Your task to perform on an android device: Show me popular games on the Play Store Image 0: 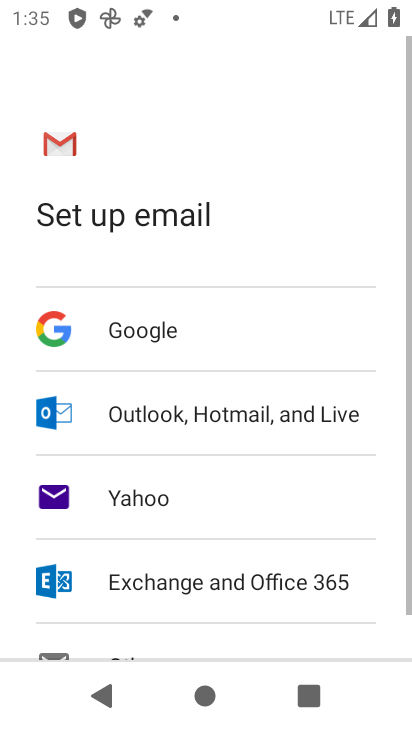
Step 0: press home button
Your task to perform on an android device: Show me popular games on the Play Store Image 1: 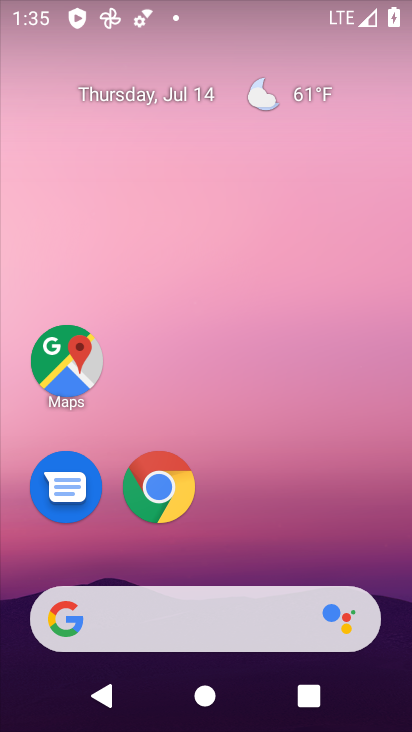
Step 1: drag from (351, 533) to (360, 96)
Your task to perform on an android device: Show me popular games on the Play Store Image 2: 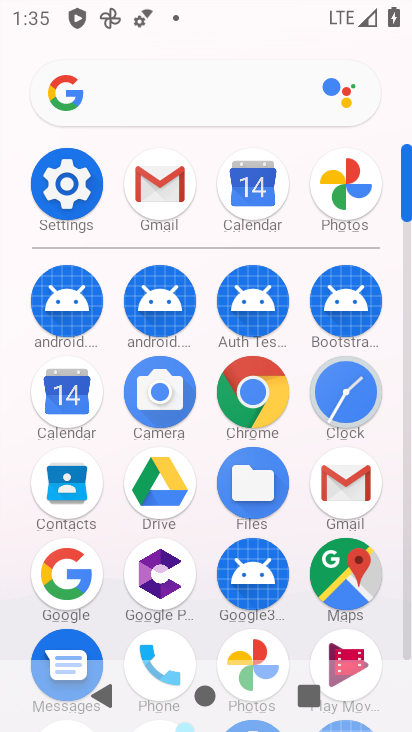
Step 2: drag from (383, 620) to (394, 301)
Your task to perform on an android device: Show me popular games on the Play Store Image 3: 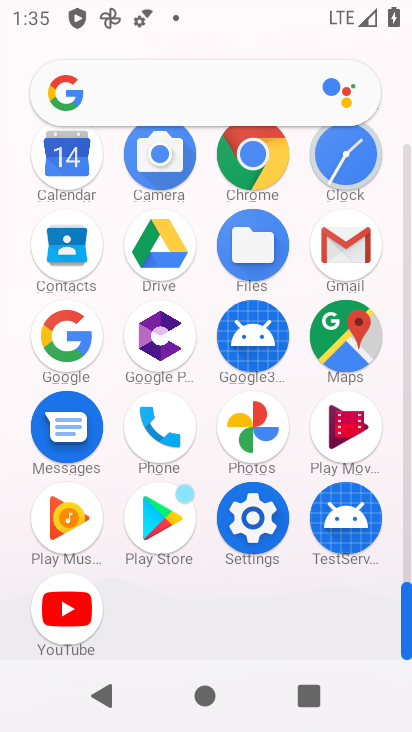
Step 3: click (165, 520)
Your task to perform on an android device: Show me popular games on the Play Store Image 4: 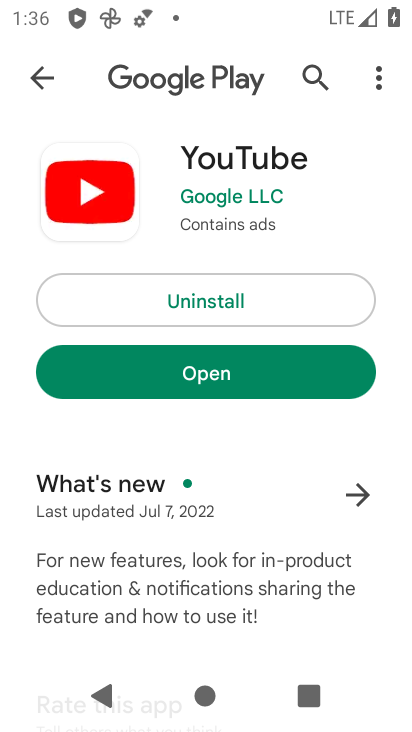
Step 4: press back button
Your task to perform on an android device: Show me popular games on the Play Store Image 5: 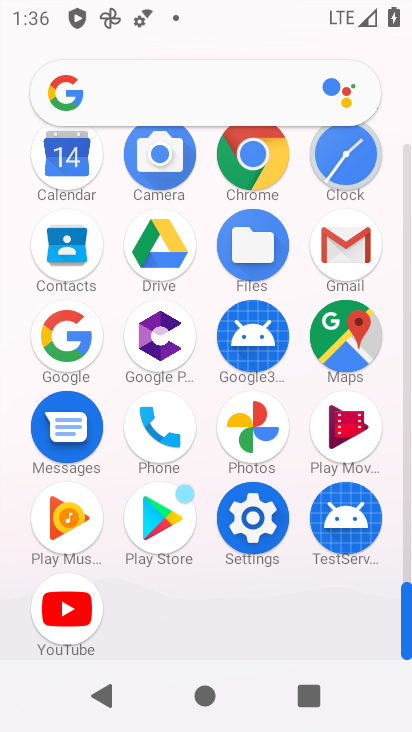
Step 5: click (150, 507)
Your task to perform on an android device: Show me popular games on the Play Store Image 6: 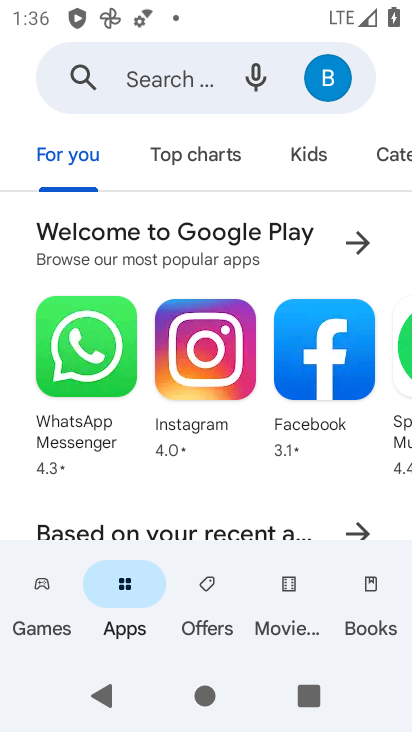
Step 6: click (43, 607)
Your task to perform on an android device: Show me popular games on the Play Store Image 7: 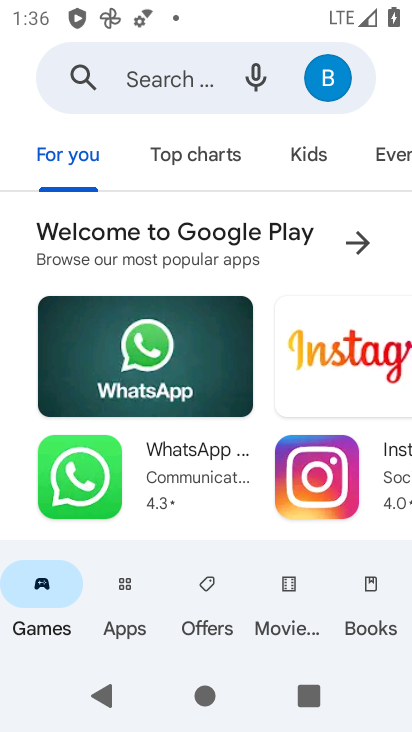
Step 7: task complete